Your task to perform on an android device: empty trash in the gmail app Image 0: 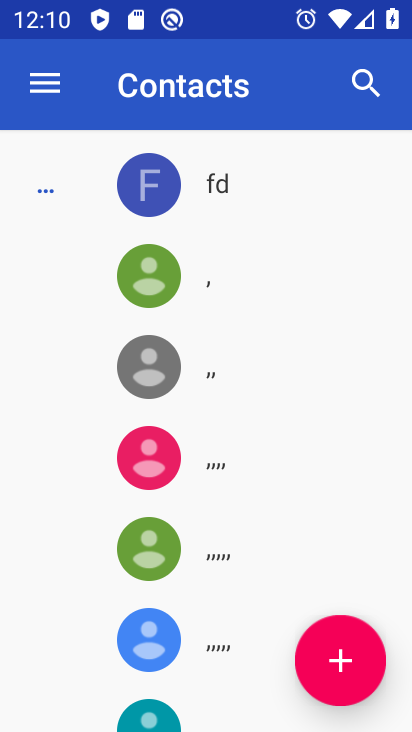
Step 0: press home button
Your task to perform on an android device: empty trash in the gmail app Image 1: 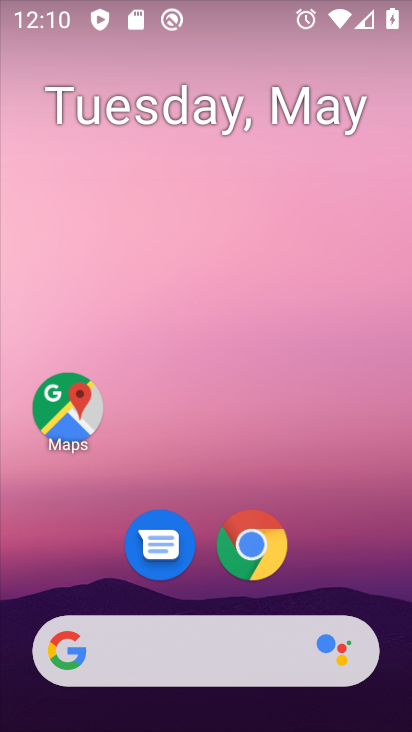
Step 1: drag from (345, 588) to (360, 295)
Your task to perform on an android device: empty trash in the gmail app Image 2: 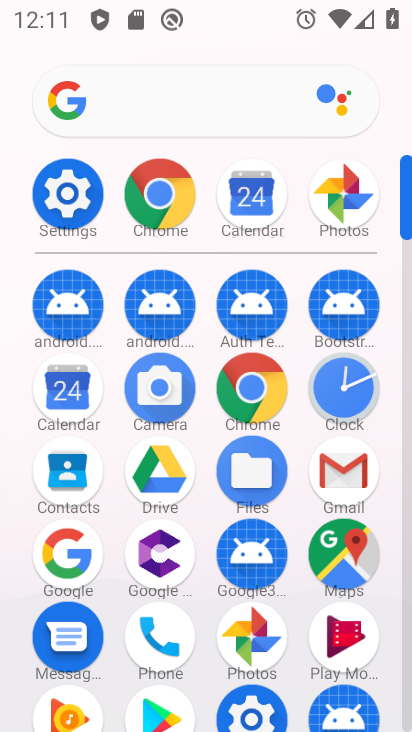
Step 2: click (327, 464)
Your task to perform on an android device: empty trash in the gmail app Image 3: 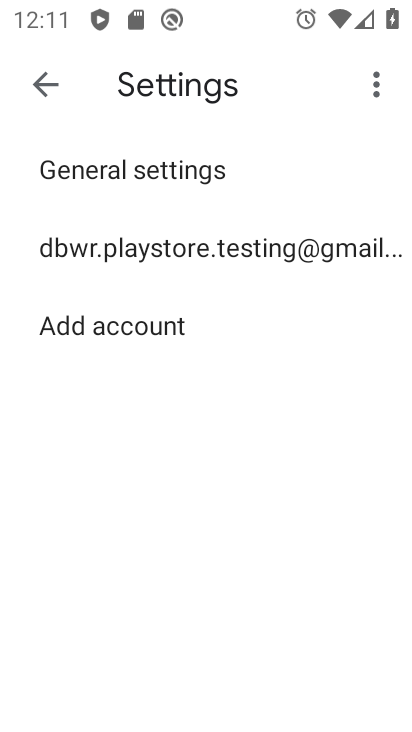
Step 3: press back button
Your task to perform on an android device: empty trash in the gmail app Image 4: 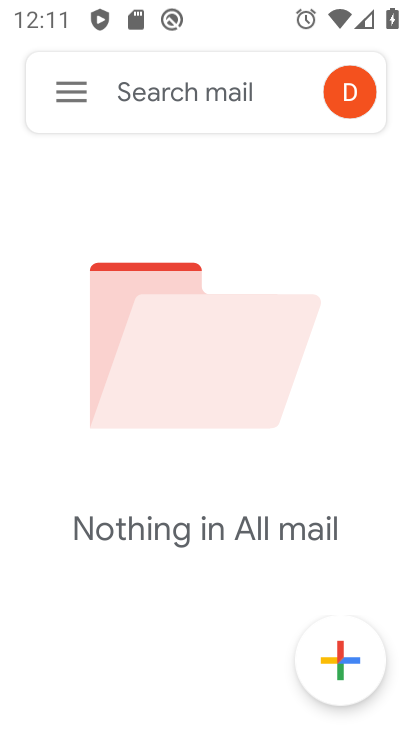
Step 4: click (41, 71)
Your task to perform on an android device: empty trash in the gmail app Image 5: 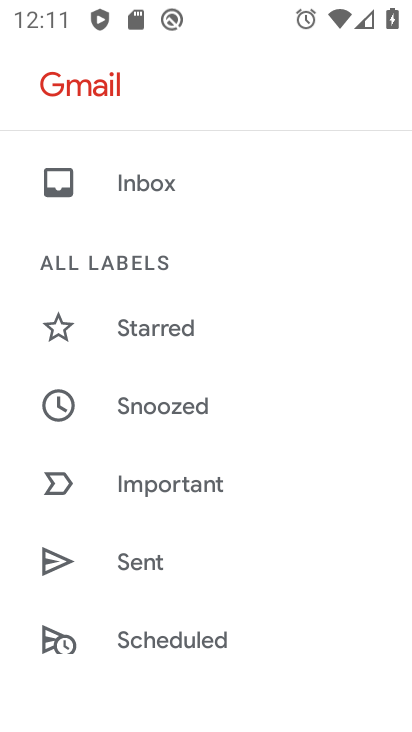
Step 5: drag from (285, 456) to (257, 369)
Your task to perform on an android device: empty trash in the gmail app Image 6: 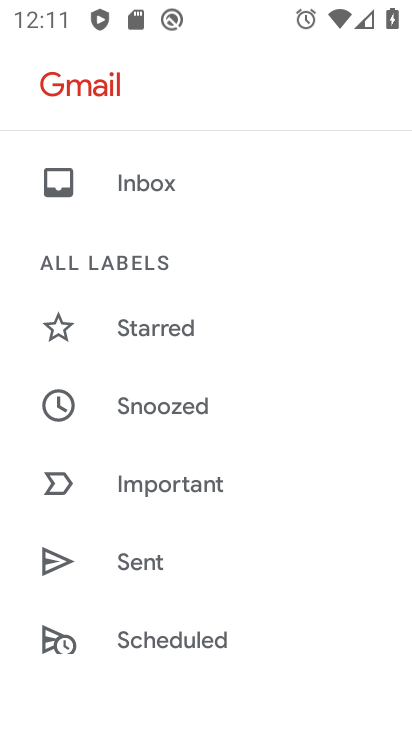
Step 6: drag from (228, 606) to (216, 279)
Your task to perform on an android device: empty trash in the gmail app Image 7: 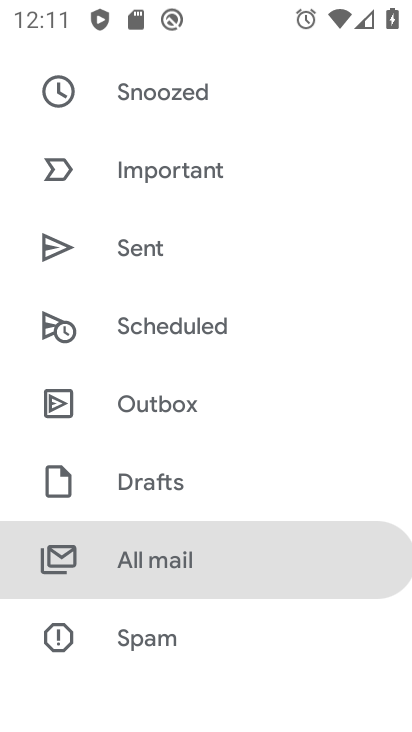
Step 7: drag from (290, 598) to (241, 238)
Your task to perform on an android device: empty trash in the gmail app Image 8: 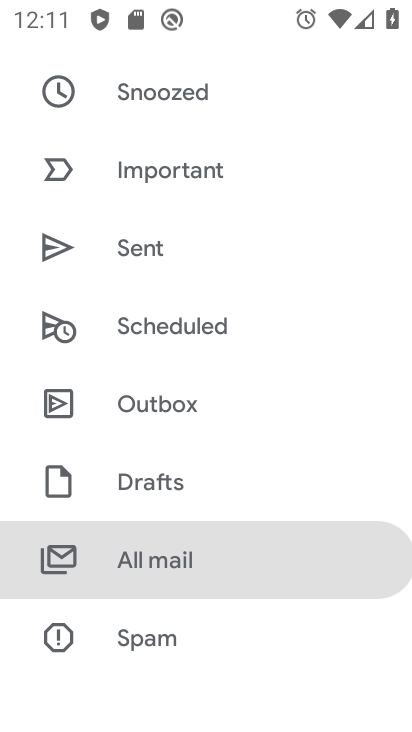
Step 8: drag from (234, 582) to (289, 406)
Your task to perform on an android device: empty trash in the gmail app Image 9: 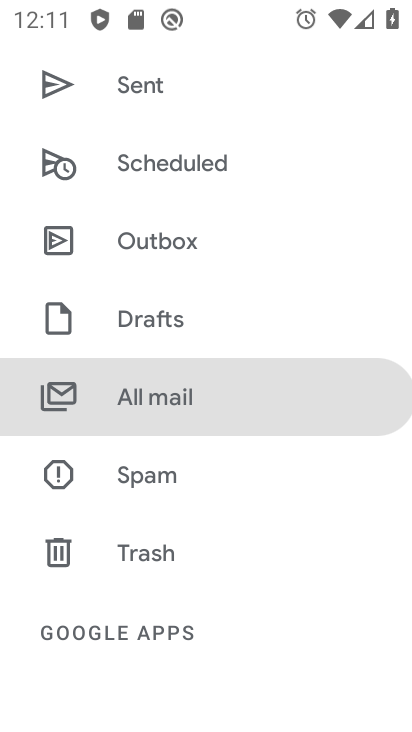
Step 9: click (129, 546)
Your task to perform on an android device: empty trash in the gmail app Image 10: 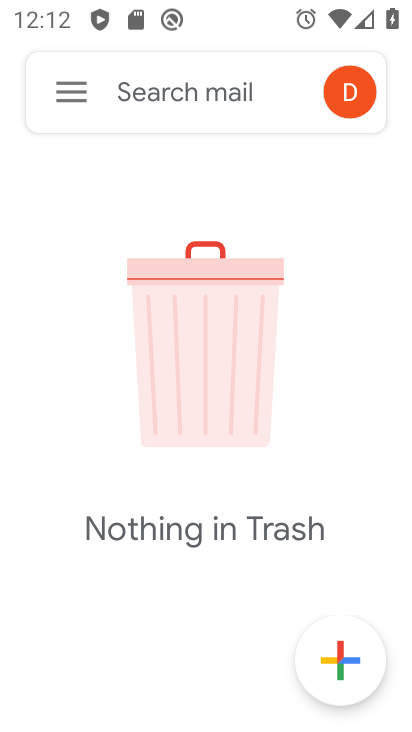
Step 10: task complete